Your task to perform on an android device: turn off javascript in the chrome app Image 0: 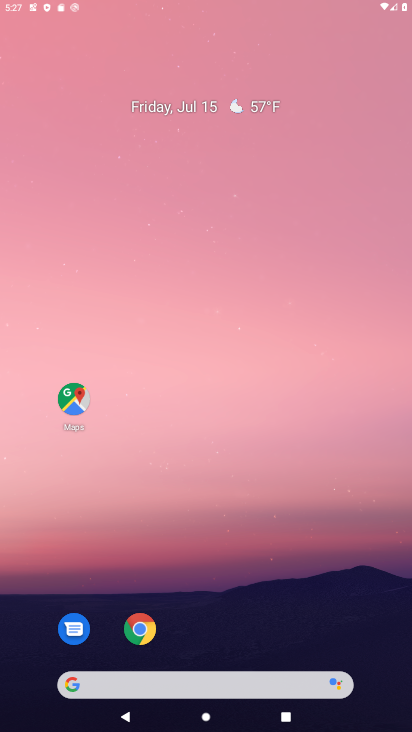
Step 0: press home button
Your task to perform on an android device: turn off javascript in the chrome app Image 1: 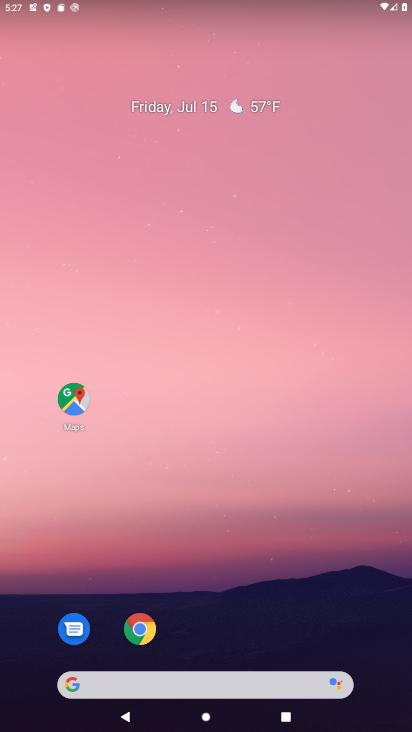
Step 1: drag from (210, 652) to (227, 107)
Your task to perform on an android device: turn off javascript in the chrome app Image 2: 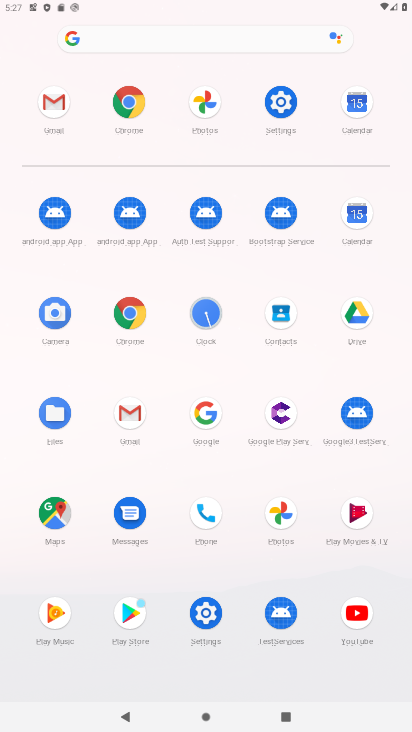
Step 2: click (127, 103)
Your task to perform on an android device: turn off javascript in the chrome app Image 3: 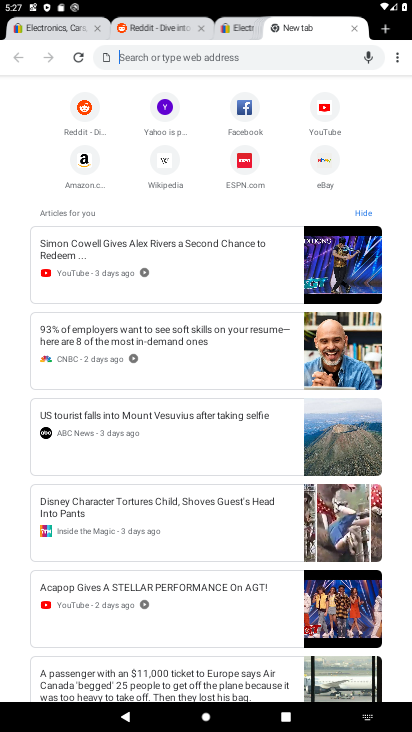
Step 3: drag from (400, 57) to (290, 262)
Your task to perform on an android device: turn off javascript in the chrome app Image 4: 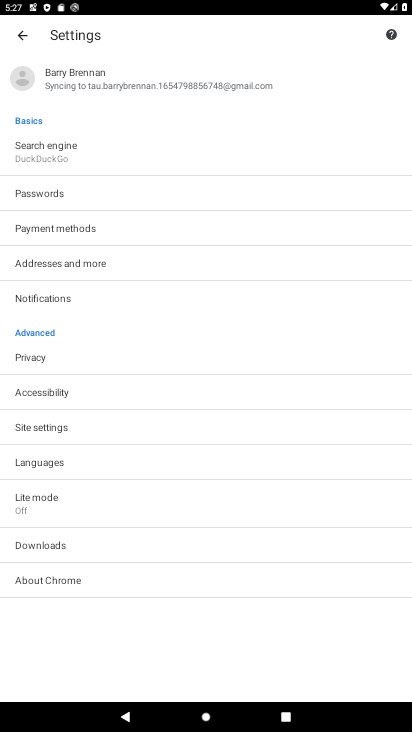
Step 4: click (31, 431)
Your task to perform on an android device: turn off javascript in the chrome app Image 5: 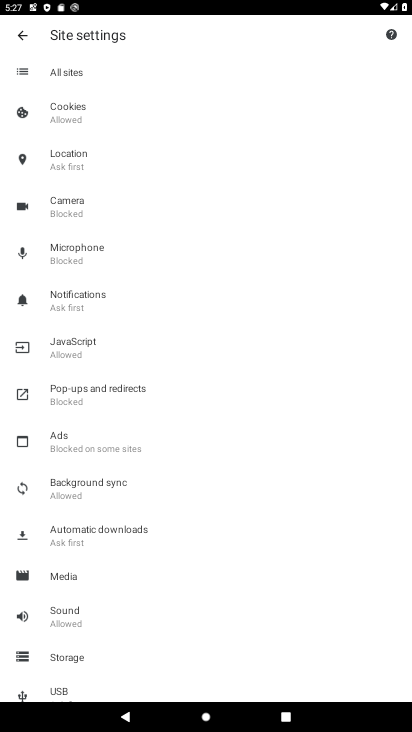
Step 5: click (68, 344)
Your task to perform on an android device: turn off javascript in the chrome app Image 6: 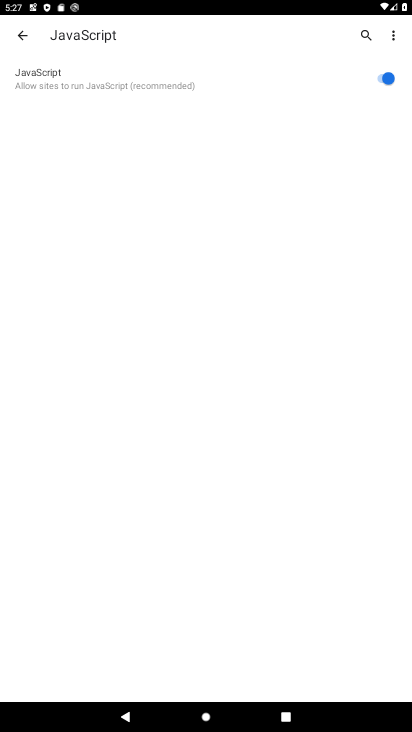
Step 6: click (388, 75)
Your task to perform on an android device: turn off javascript in the chrome app Image 7: 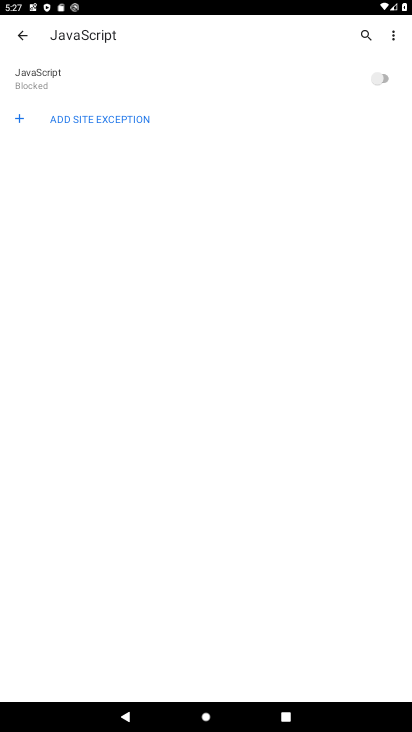
Step 7: task complete